Your task to perform on an android device: install app "YouTube Kids" Image 0: 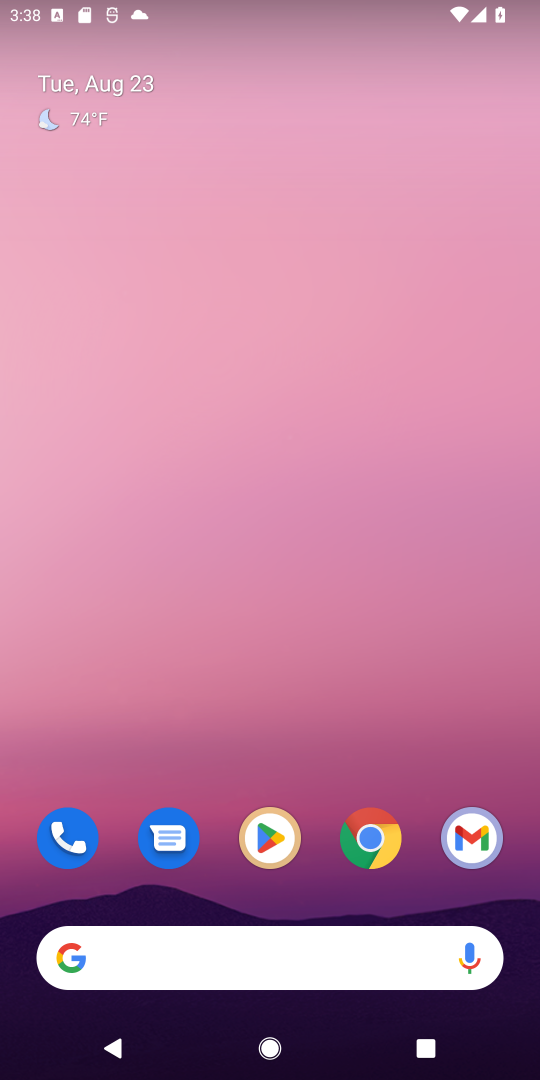
Step 0: click (261, 849)
Your task to perform on an android device: install app "YouTube Kids" Image 1: 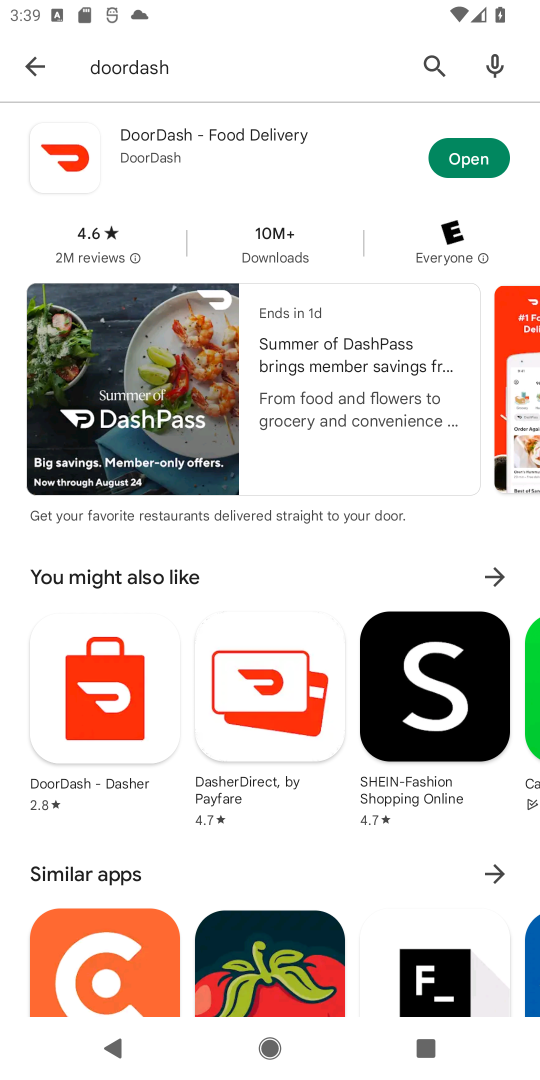
Step 1: click (21, 53)
Your task to perform on an android device: install app "YouTube Kids" Image 2: 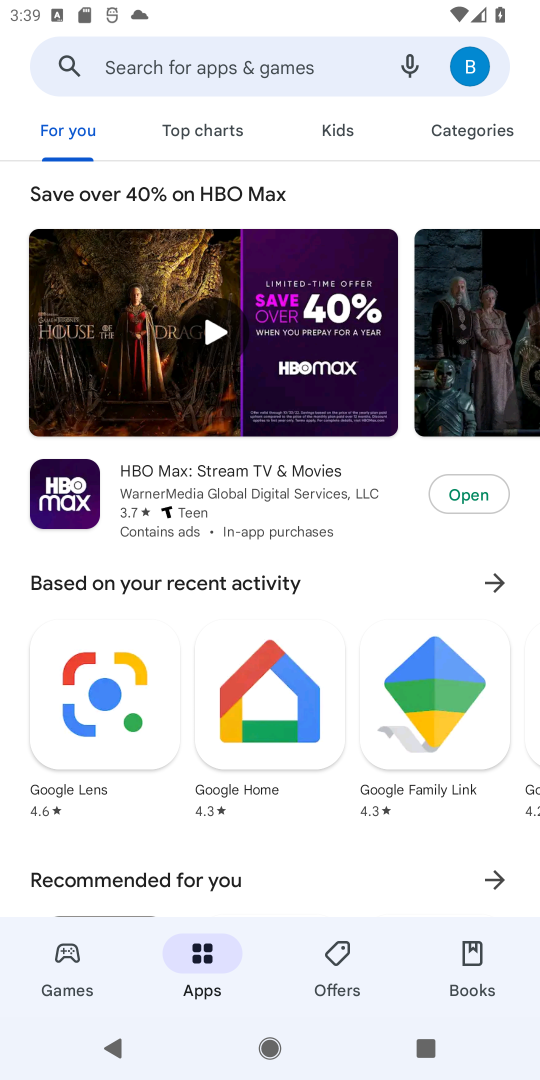
Step 2: click (105, 63)
Your task to perform on an android device: install app "YouTube Kids" Image 3: 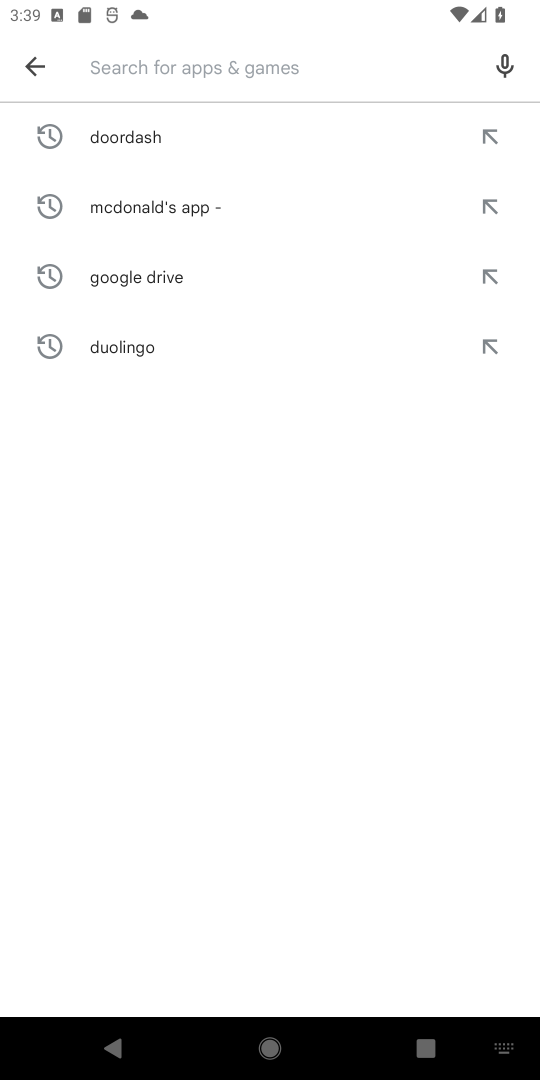
Step 3: type "YouTube Kids"
Your task to perform on an android device: install app "YouTube Kids" Image 4: 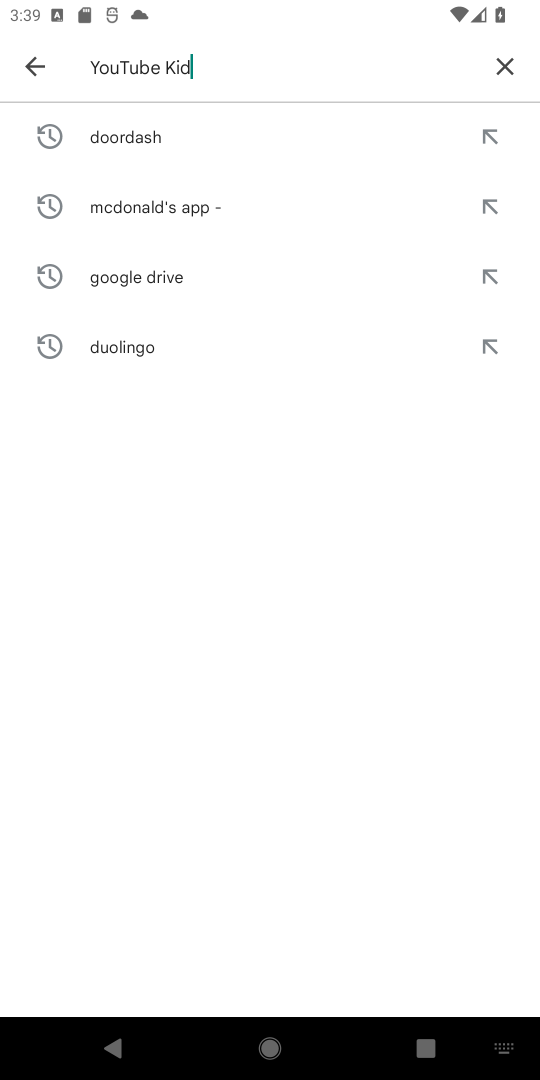
Step 4: type ""
Your task to perform on an android device: install app "YouTube Kids" Image 5: 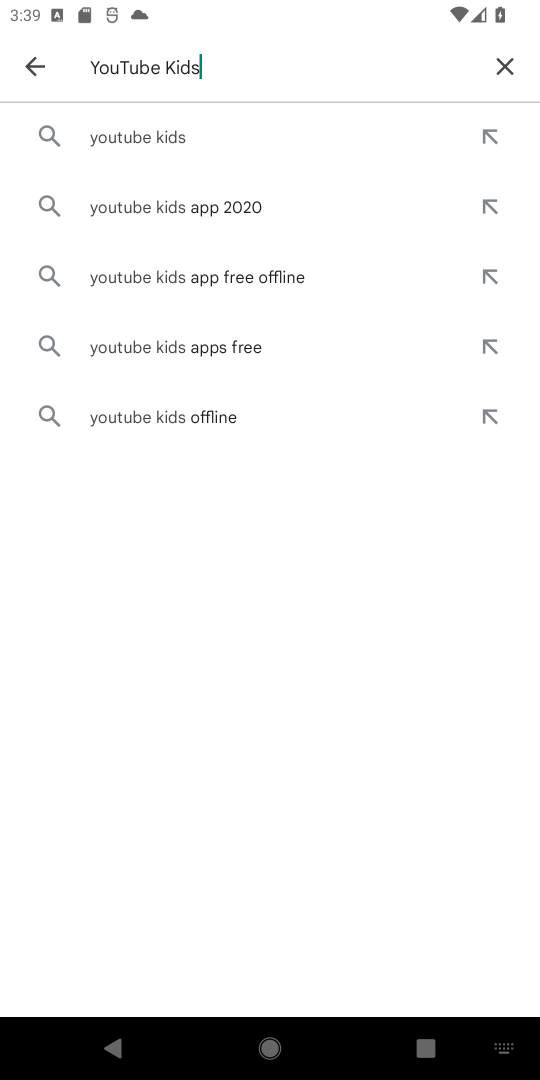
Step 5: click (125, 126)
Your task to perform on an android device: install app "YouTube Kids" Image 6: 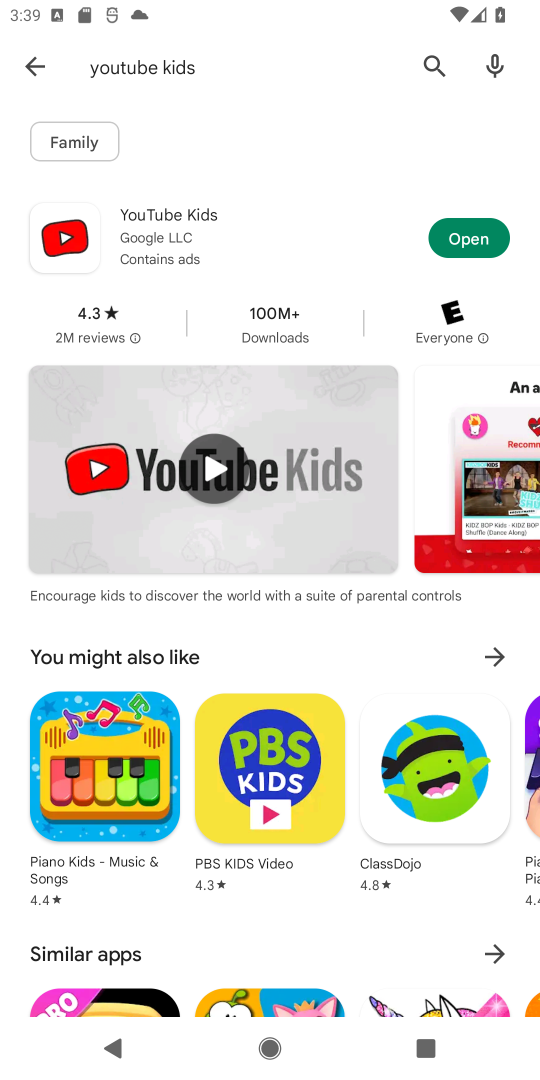
Step 6: click (457, 234)
Your task to perform on an android device: install app "YouTube Kids" Image 7: 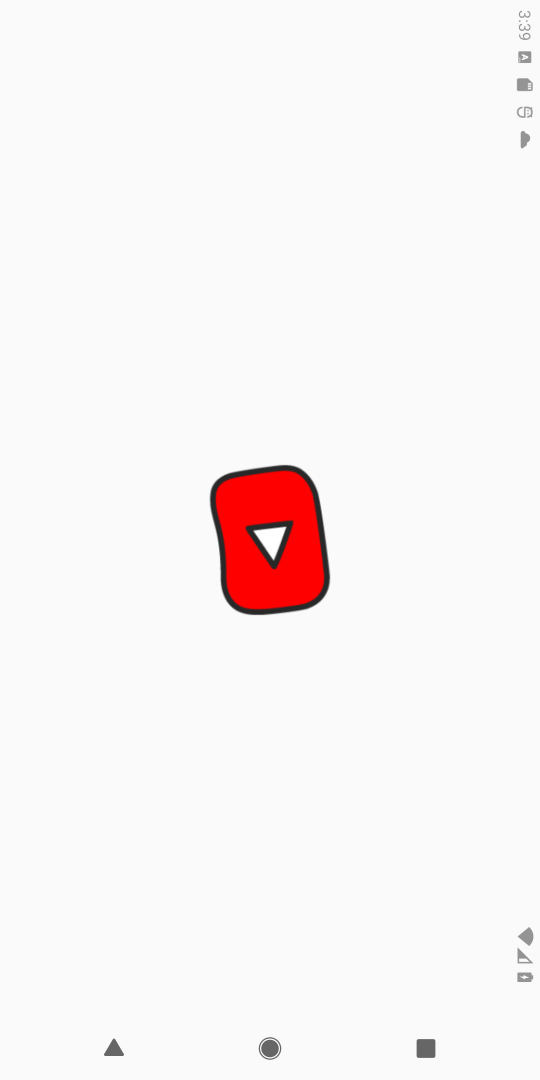
Step 7: task complete